Your task to perform on an android device: Open calendar and show me the third week of next month Image 0: 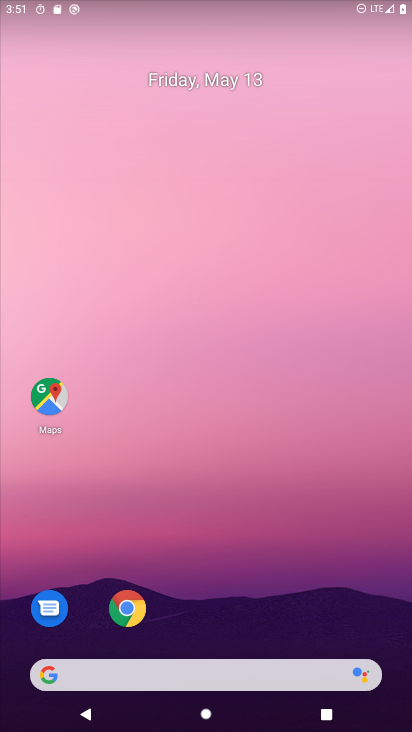
Step 0: drag from (265, 587) to (267, 118)
Your task to perform on an android device: Open calendar and show me the third week of next month Image 1: 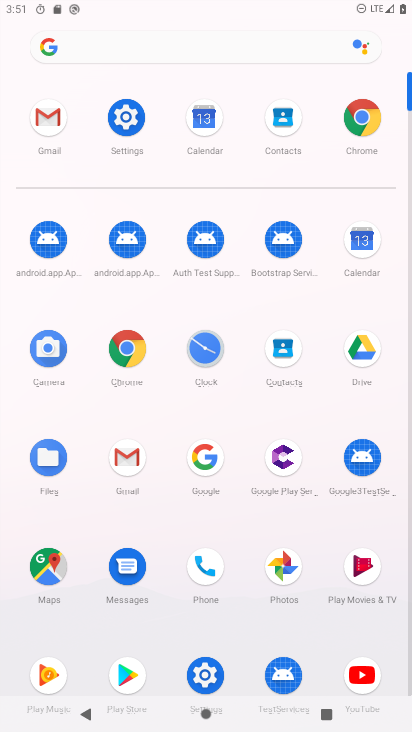
Step 1: click (200, 124)
Your task to perform on an android device: Open calendar and show me the third week of next month Image 2: 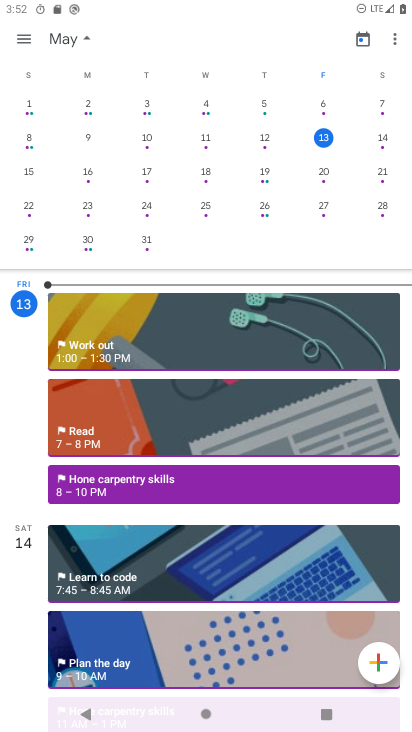
Step 2: drag from (368, 138) to (10, 127)
Your task to perform on an android device: Open calendar and show me the third week of next month Image 3: 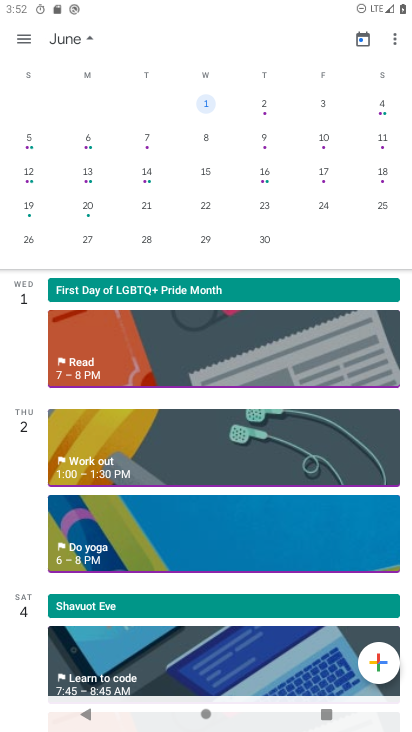
Step 3: click (208, 201)
Your task to perform on an android device: Open calendar and show me the third week of next month Image 4: 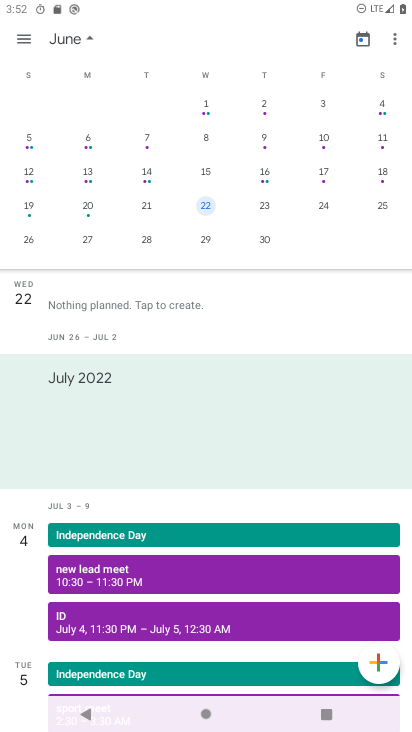
Step 4: task complete